Your task to perform on an android device: change text size in settings app Image 0: 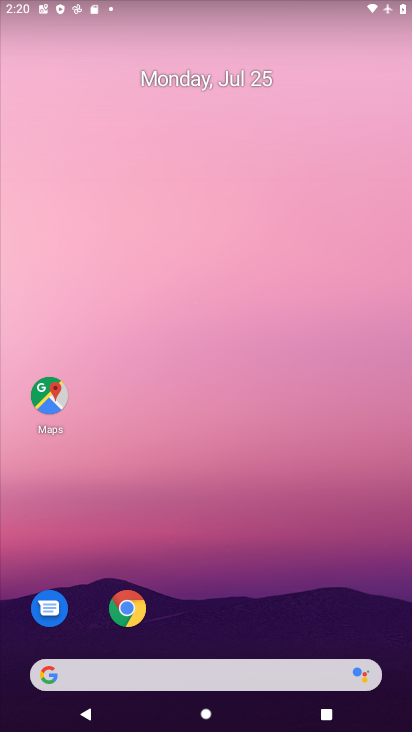
Step 0: drag from (236, 621) to (285, 98)
Your task to perform on an android device: change text size in settings app Image 1: 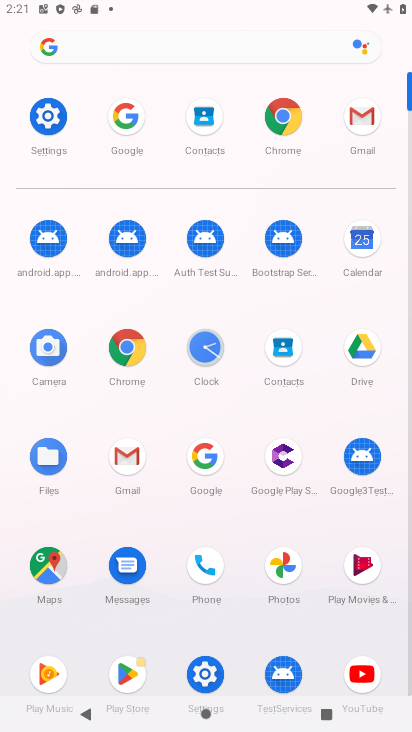
Step 1: click (55, 131)
Your task to perform on an android device: change text size in settings app Image 2: 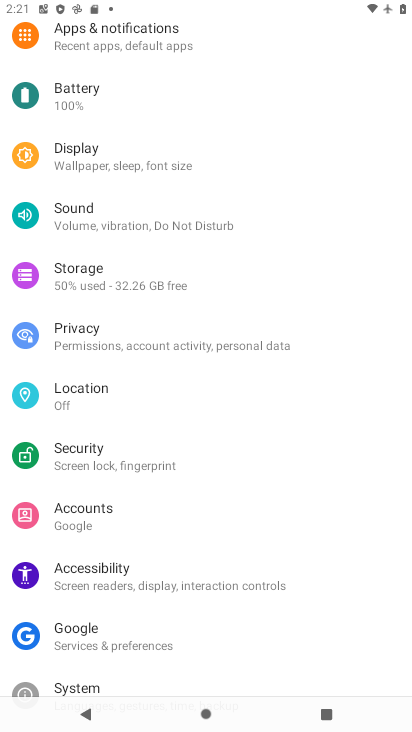
Step 2: click (91, 164)
Your task to perform on an android device: change text size in settings app Image 3: 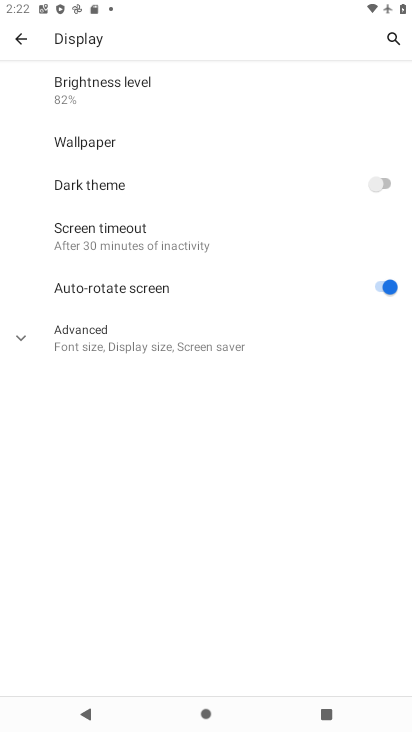
Step 3: click (139, 354)
Your task to perform on an android device: change text size in settings app Image 4: 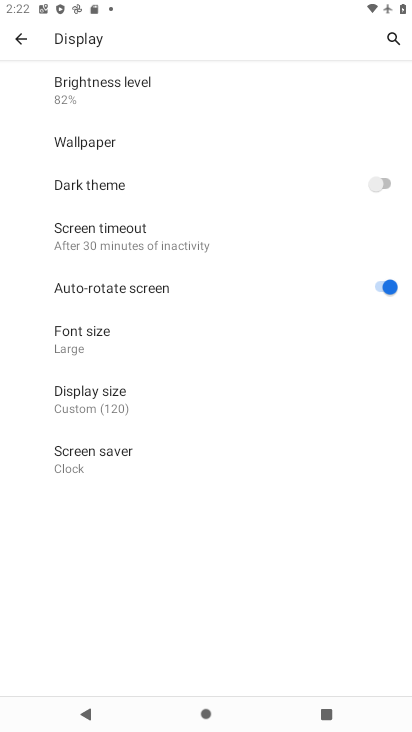
Step 4: click (99, 339)
Your task to perform on an android device: change text size in settings app Image 5: 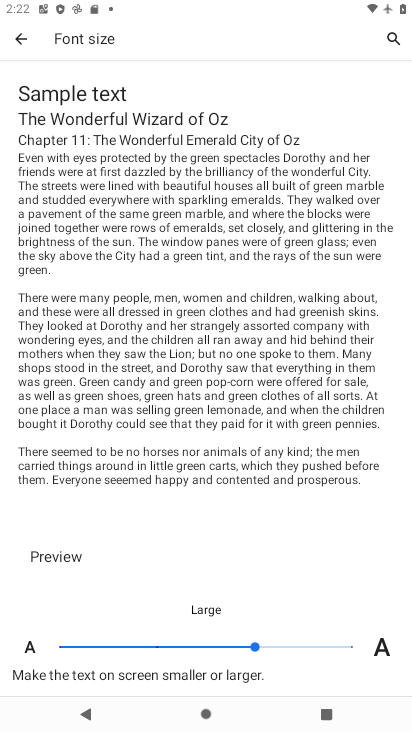
Step 5: task complete